Your task to perform on an android device: Search for vintage wall art on Etsy. Image 0: 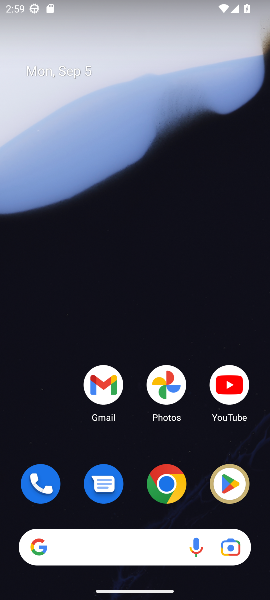
Step 0: click (162, 481)
Your task to perform on an android device: Search for vintage wall art on Etsy. Image 1: 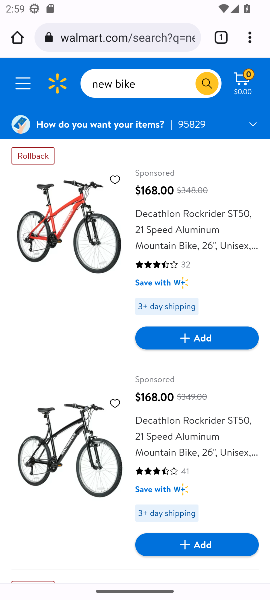
Step 1: click (156, 37)
Your task to perform on an android device: Search for vintage wall art on Etsy. Image 2: 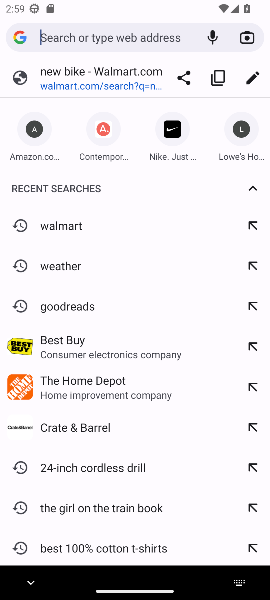
Step 2: type "Etsy"
Your task to perform on an android device: Search for vintage wall art on Etsy. Image 3: 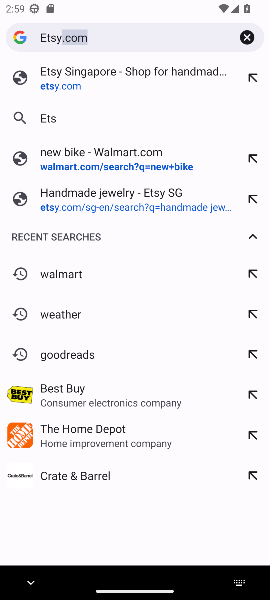
Step 3: press enter
Your task to perform on an android device: Search for vintage wall art on Etsy. Image 4: 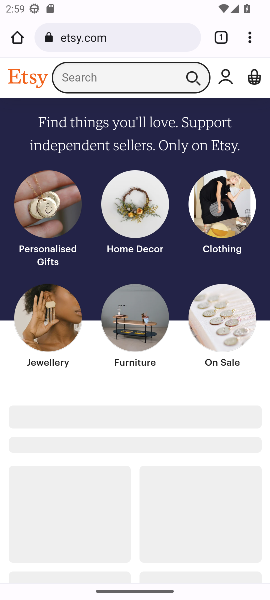
Step 4: click (126, 79)
Your task to perform on an android device: Search for vintage wall art on Etsy. Image 5: 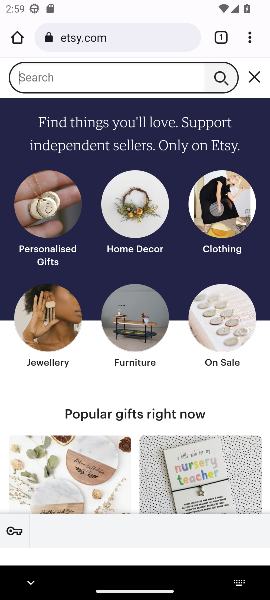
Step 5: type "vintage wall art"
Your task to perform on an android device: Search for vintage wall art on Etsy. Image 6: 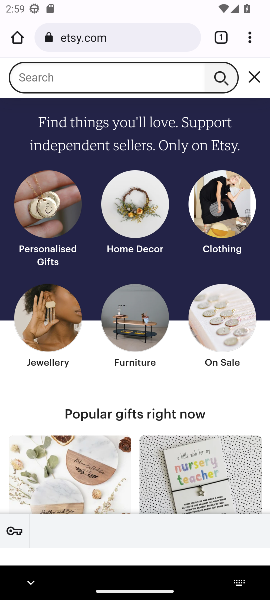
Step 6: press enter
Your task to perform on an android device: Search for vintage wall art on Etsy. Image 7: 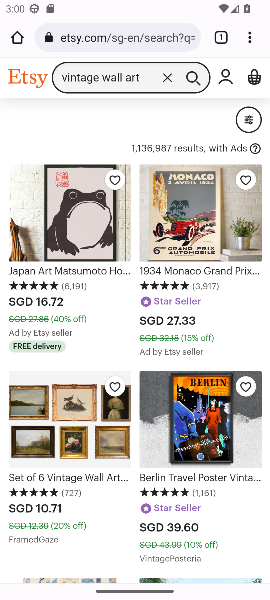
Step 7: task complete